Your task to perform on an android device: Is it going to rain tomorrow? Image 0: 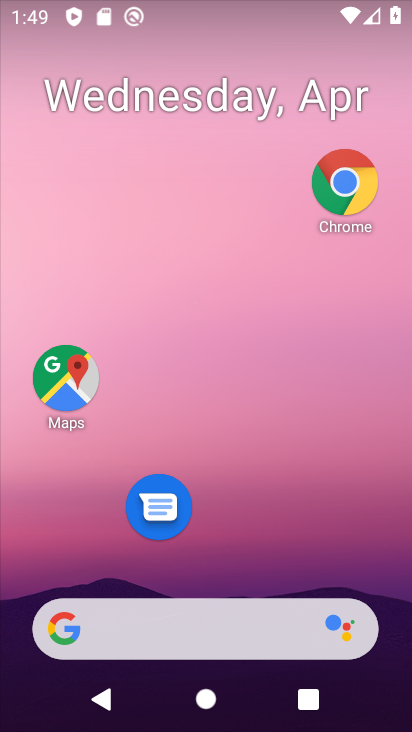
Step 0: click (201, 622)
Your task to perform on an android device: Is it going to rain tomorrow? Image 1: 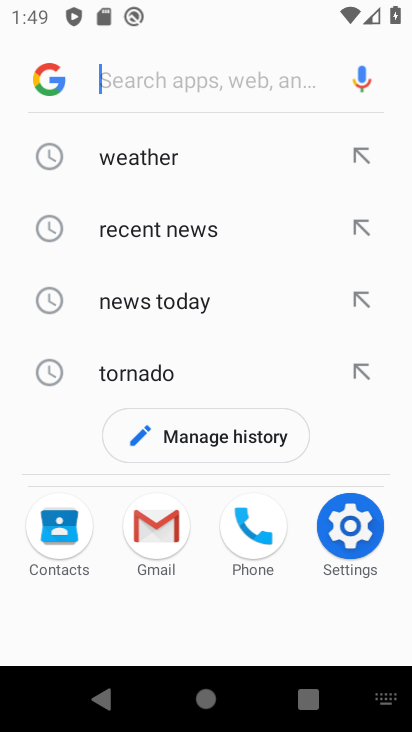
Step 1: type "Is it going to rain tomorrow?"
Your task to perform on an android device: Is it going to rain tomorrow? Image 2: 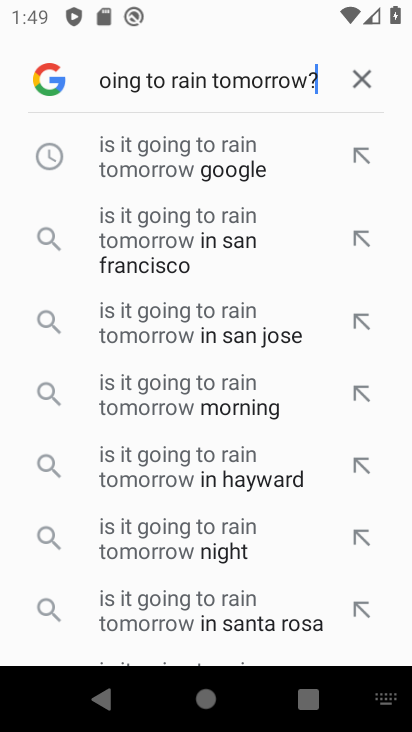
Step 2: click (270, 170)
Your task to perform on an android device: Is it going to rain tomorrow? Image 3: 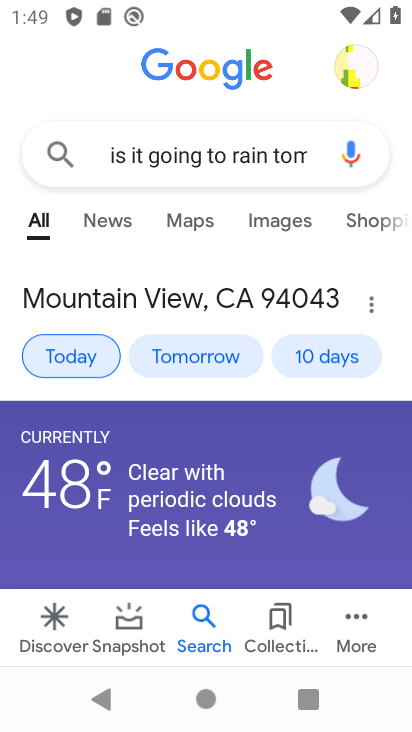
Step 3: click (203, 349)
Your task to perform on an android device: Is it going to rain tomorrow? Image 4: 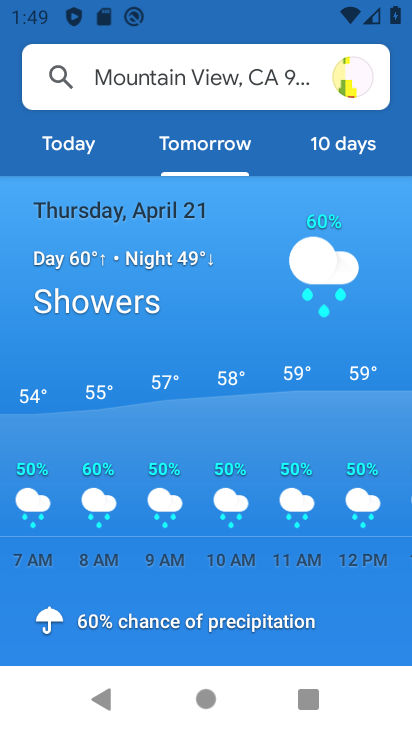
Step 4: task complete